Your task to perform on an android device: Go to Maps Image 0: 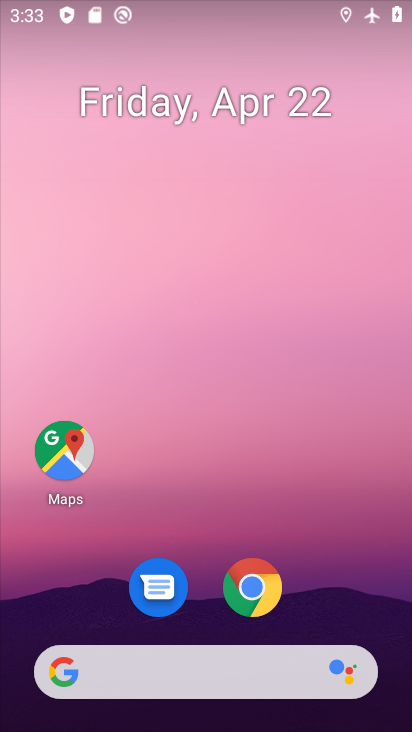
Step 0: click (65, 451)
Your task to perform on an android device: Go to Maps Image 1: 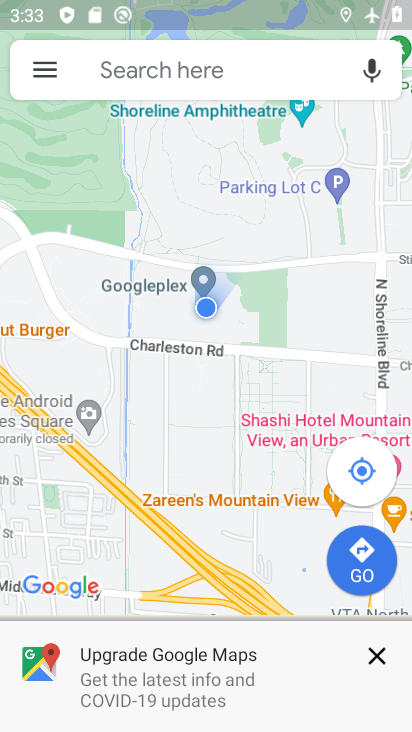
Step 1: task complete